Your task to perform on an android device: Search for sushi restaurants on Maps Image 0: 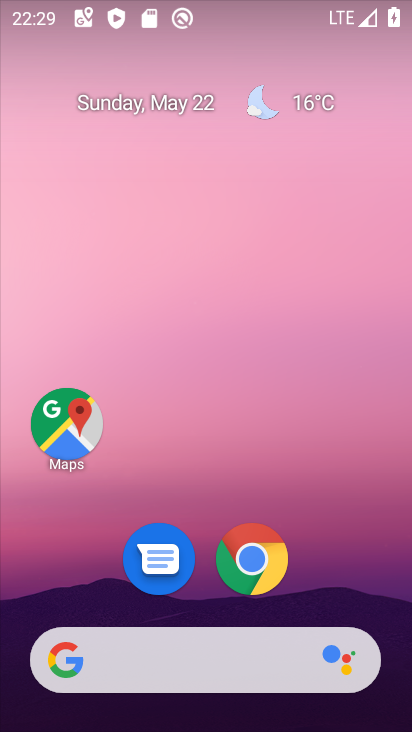
Step 0: drag from (260, 701) to (237, 205)
Your task to perform on an android device: Search for sushi restaurants on Maps Image 1: 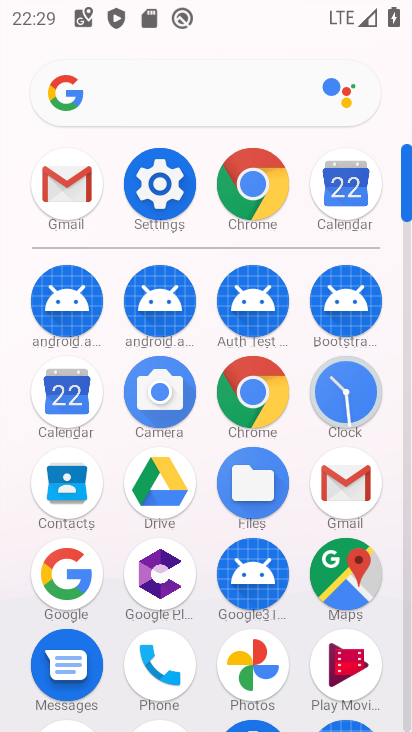
Step 1: click (359, 568)
Your task to perform on an android device: Search for sushi restaurants on Maps Image 2: 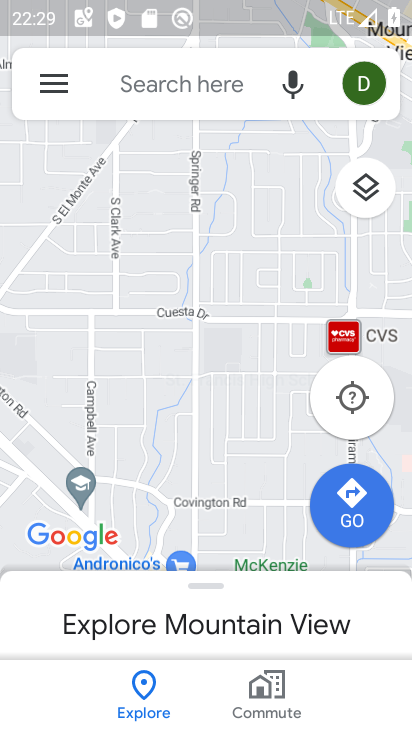
Step 2: click (165, 84)
Your task to perform on an android device: Search for sushi restaurants on Maps Image 3: 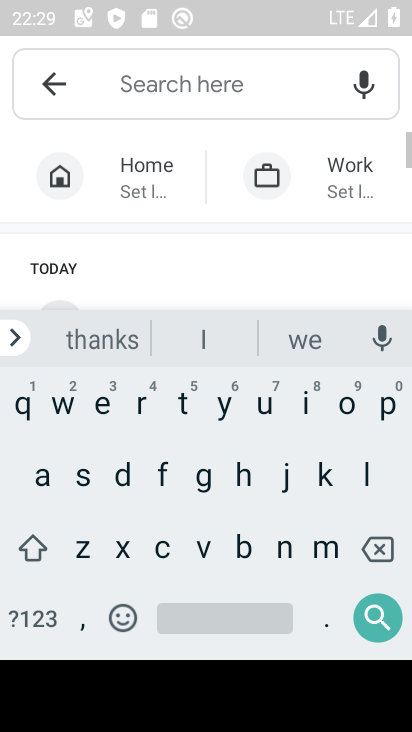
Step 3: click (73, 480)
Your task to perform on an android device: Search for sushi restaurants on Maps Image 4: 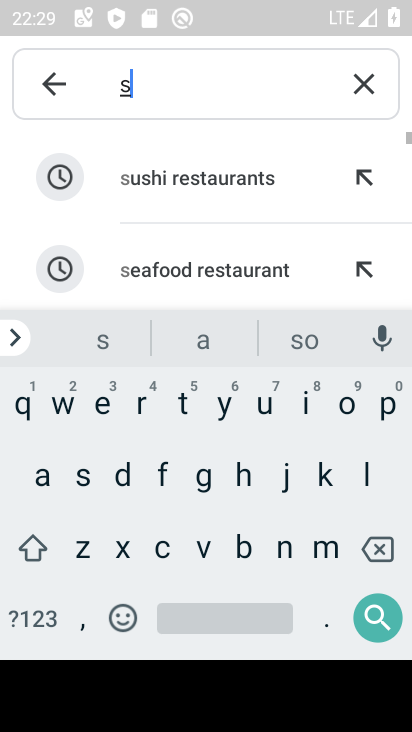
Step 4: click (270, 402)
Your task to perform on an android device: Search for sushi restaurants on Maps Image 5: 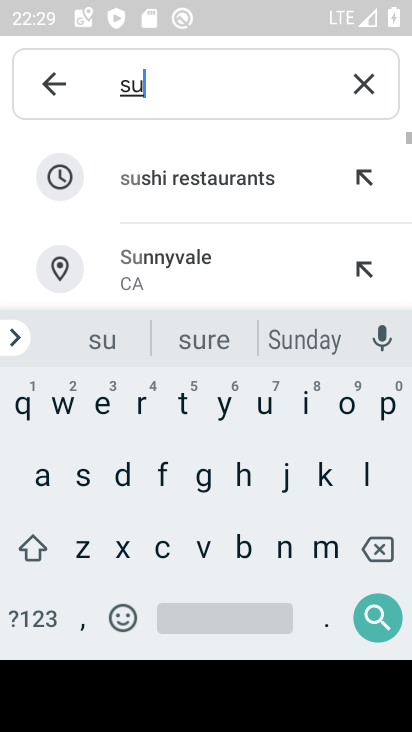
Step 5: click (210, 182)
Your task to perform on an android device: Search for sushi restaurants on Maps Image 6: 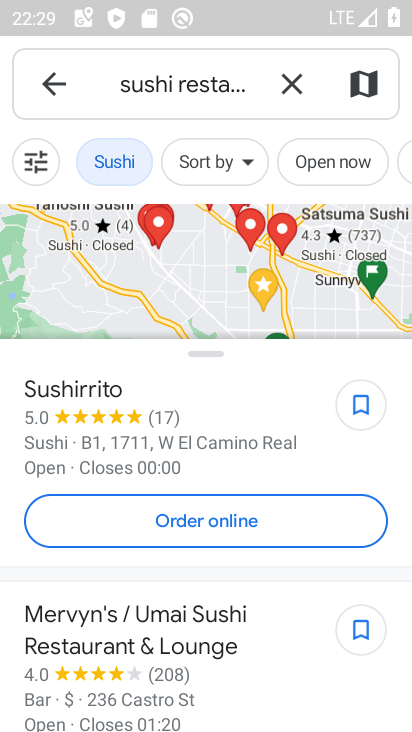
Step 6: click (208, 252)
Your task to perform on an android device: Search for sushi restaurants on Maps Image 7: 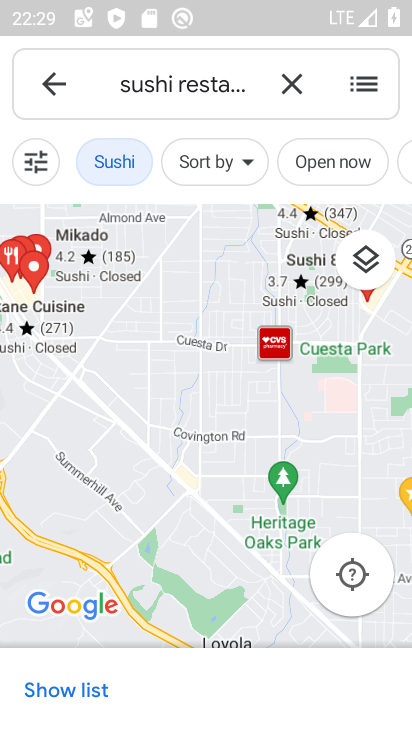
Step 7: task complete